Your task to perform on an android device: turn off wifi Image 0: 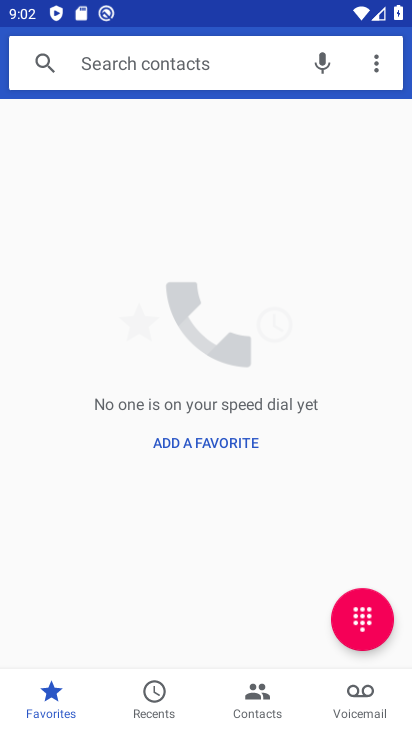
Step 0: press home button
Your task to perform on an android device: turn off wifi Image 1: 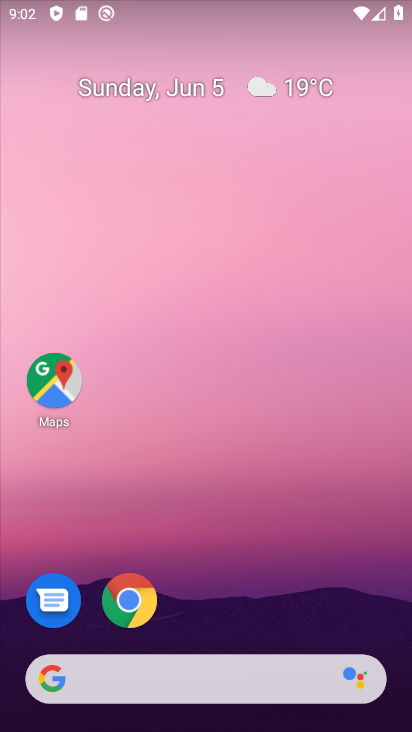
Step 1: drag from (292, 603) to (263, 81)
Your task to perform on an android device: turn off wifi Image 2: 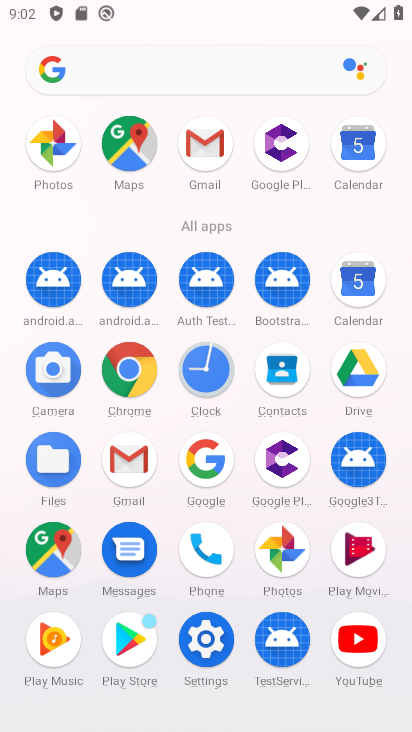
Step 2: click (207, 654)
Your task to perform on an android device: turn off wifi Image 3: 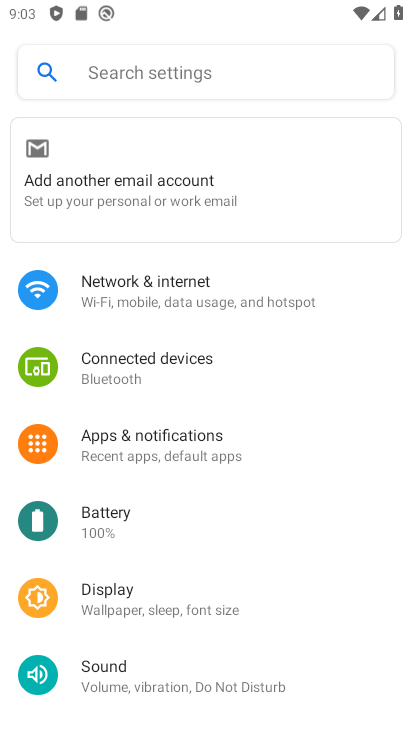
Step 3: click (276, 285)
Your task to perform on an android device: turn off wifi Image 4: 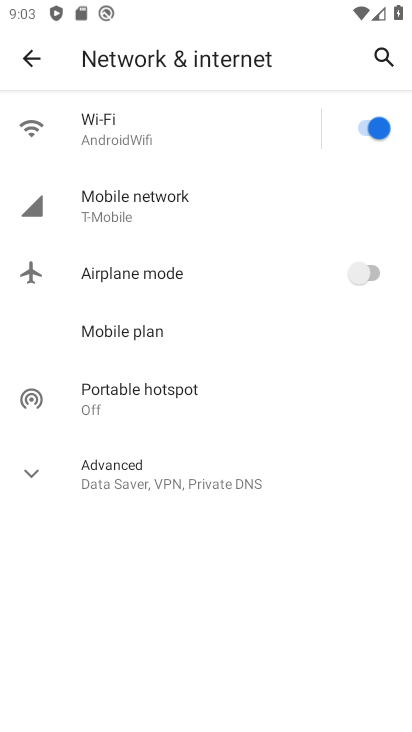
Step 4: click (370, 129)
Your task to perform on an android device: turn off wifi Image 5: 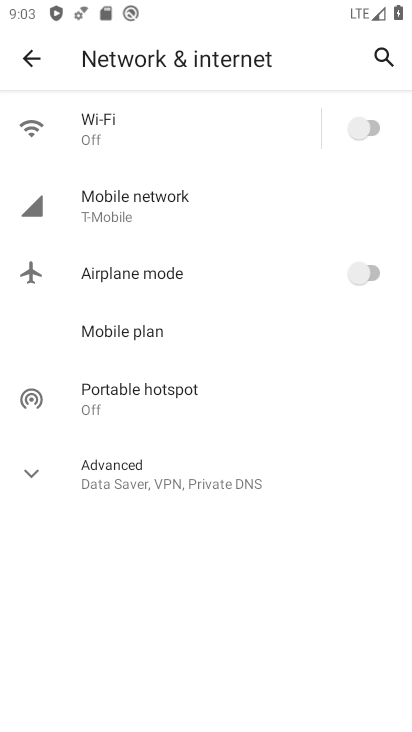
Step 5: task complete